Your task to perform on an android device: Go to network settings Image 0: 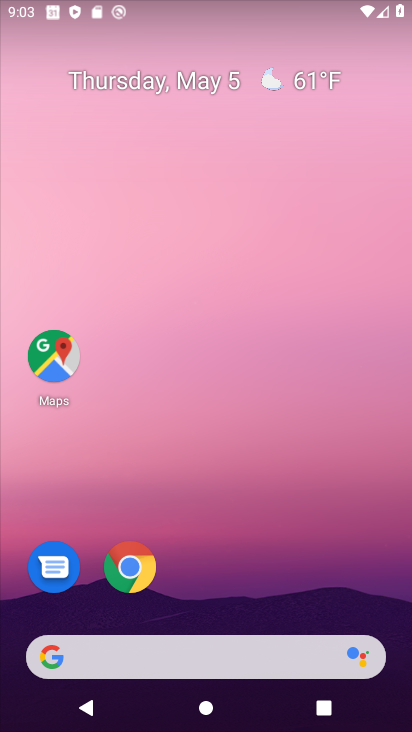
Step 0: drag from (228, 728) to (190, 221)
Your task to perform on an android device: Go to network settings Image 1: 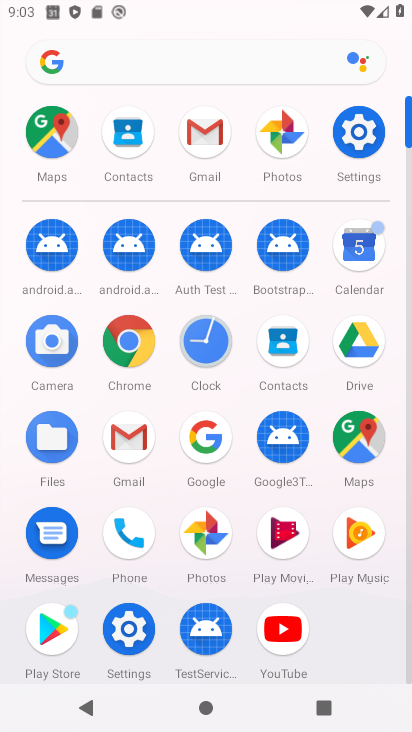
Step 1: click (359, 134)
Your task to perform on an android device: Go to network settings Image 2: 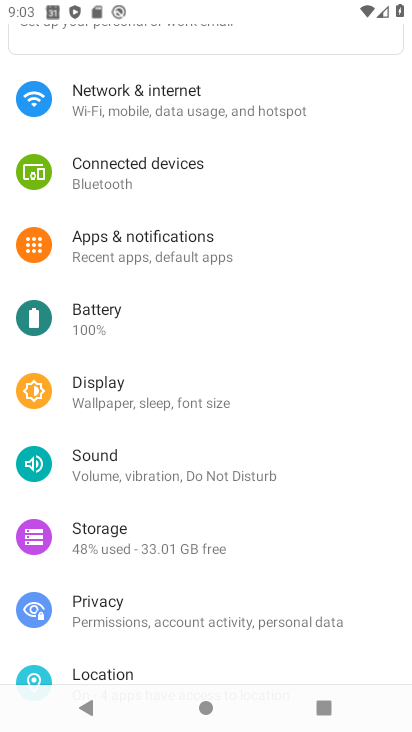
Step 2: click (140, 109)
Your task to perform on an android device: Go to network settings Image 3: 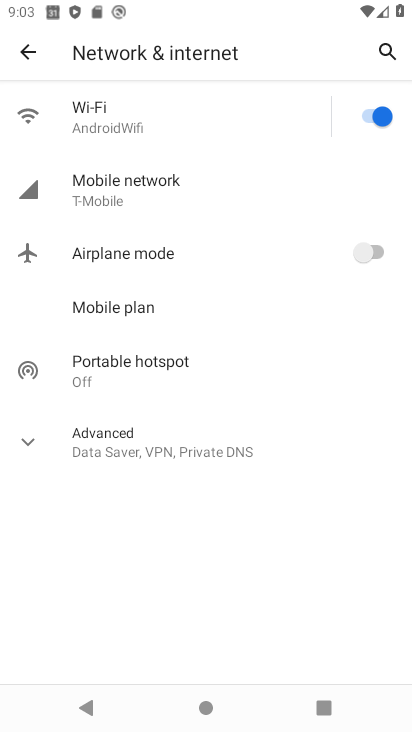
Step 3: click (113, 185)
Your task to perform on an android device: Go to network settings Image 4: 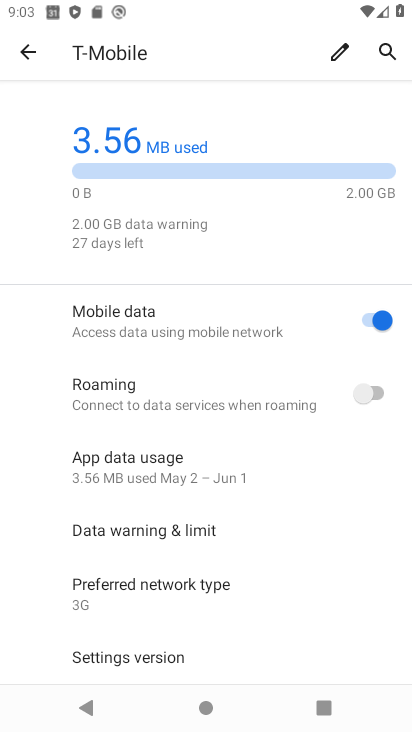
Step 4: task complete